Your task to perform on an android device: Open network settings Image 0: 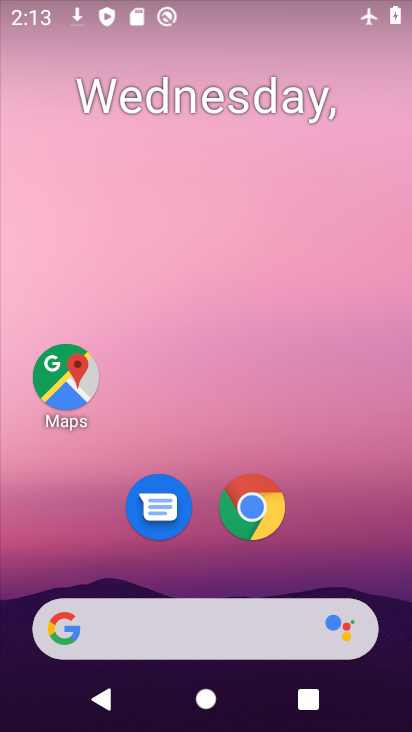
Step 0: drag from (365, 521) to (340, 99)
Your task to perform on an android device: Open network settings Image 1: 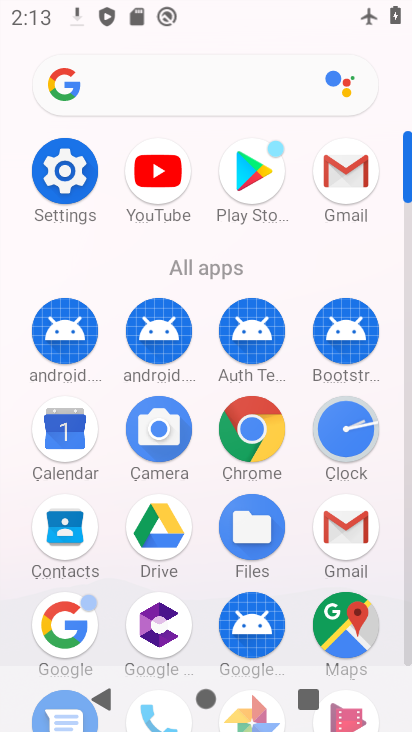
Step 1: click (47, 194)
Your task to perform on an android device: Open network settings Image 2: 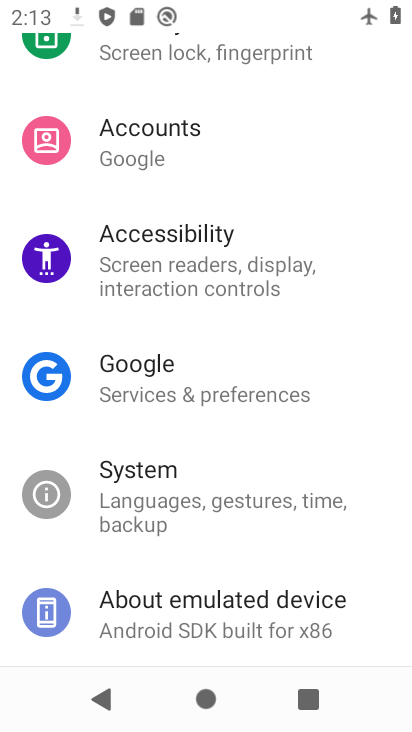
Step 2: drag from (287, 194) to (269, 502)
Your task to perform on an android device: Open network settings Image 3: 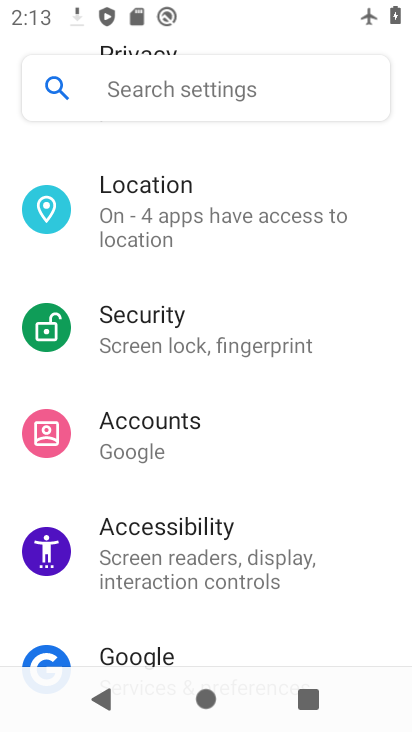
Step 3: drag from (222, 177) to (212, 548)
Your task to perform on an android device: Open network settings Image 4: 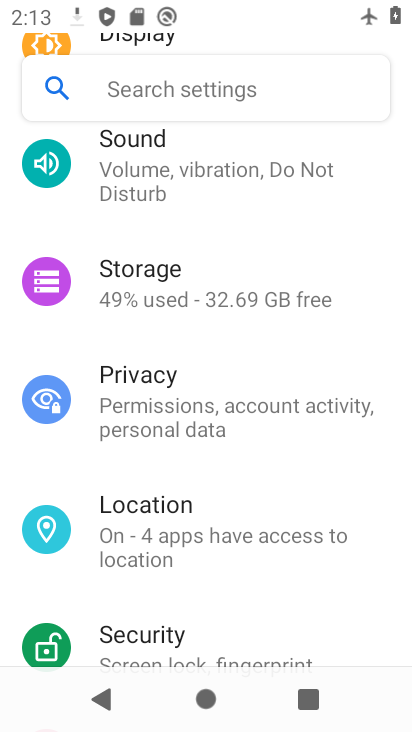
Step 4: drag from (213, 233) to (187, 551)
Your task to perform on an android device: Open network settings Image 5: 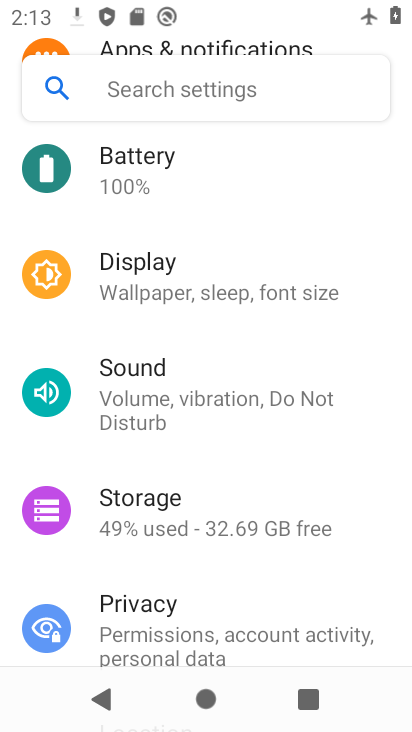
Step 5: drag from (205, 225) to (196, 716)
Your task to perform on an android device: Open network settings Image 6: 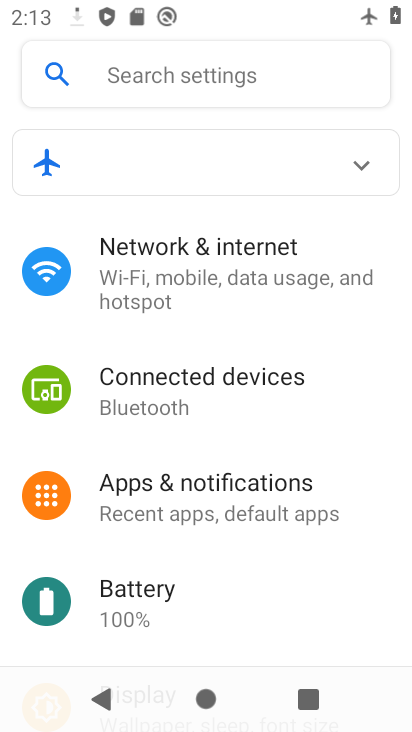
Step 6: click (183, 302)
Your task to perform on an android device: Open network settings Image 7: 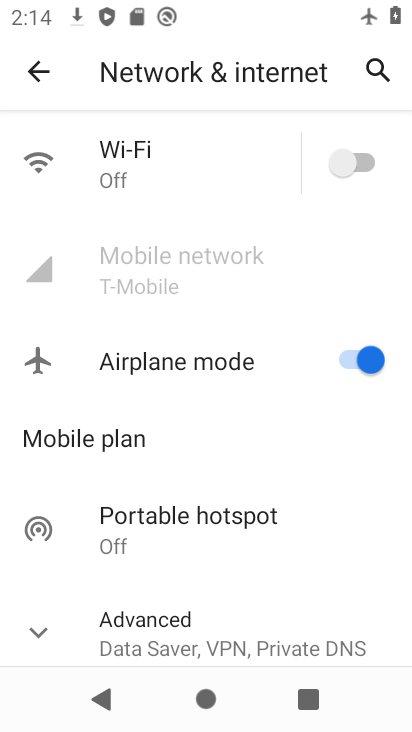
Step 7: task complete